Your task to perform on an android device: Toggle the flashlight Image 0: 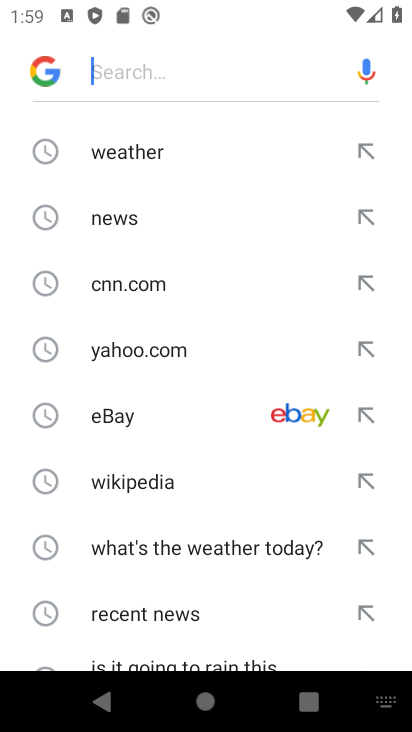
Step 0: press home button
Your task to perform on an android device: Toggle the flashlight Image 1: 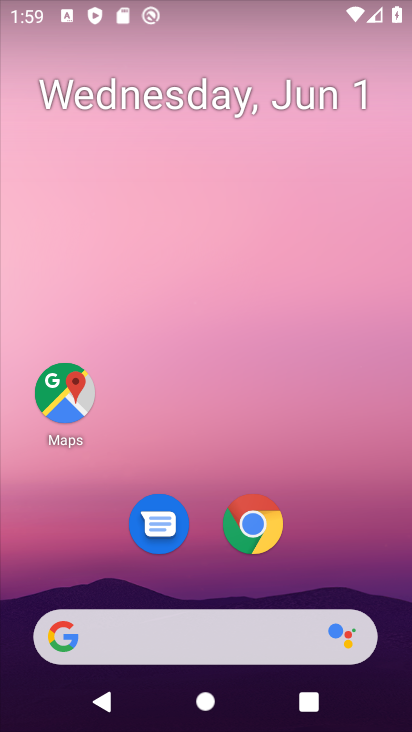
Step 1: drag from (237, 431) to (243, 1)
Your task to perform on an android device: Toggle the flashlight Image 2: 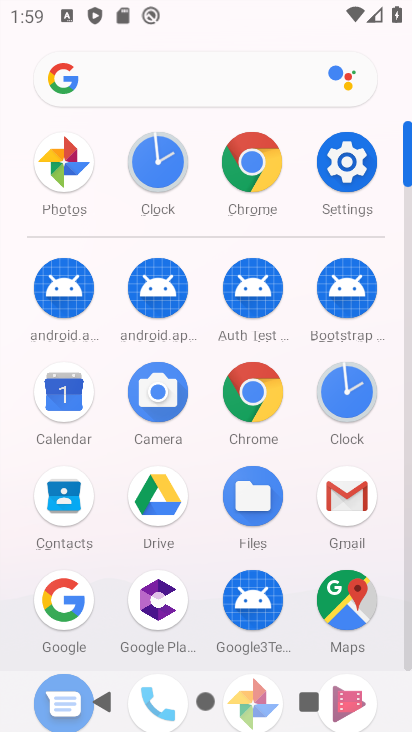
Step 2: click (332, 170)
Your task to perform on an android device: Toggle the flashlight Image 3: 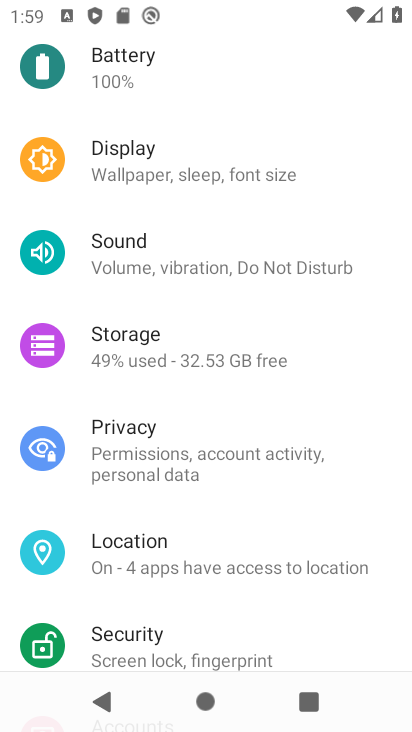
Step 3: drag from (249, 188) to (258, 725)
Your task to perform on an android device: Toggle the flashlight Image 4: 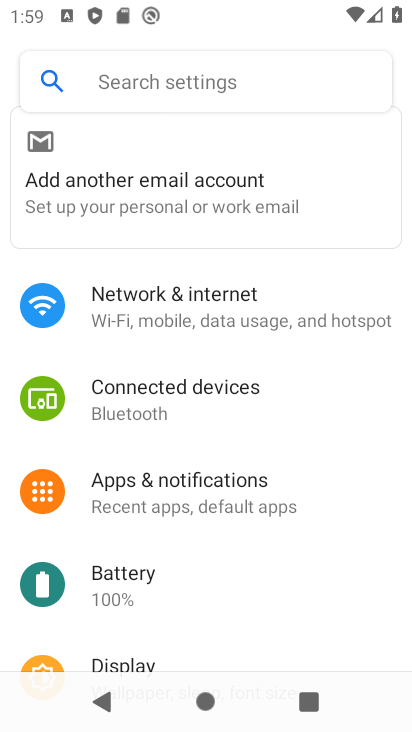
Step 4: click (295, 77)
Your task to perform on an android device: Toggle the flashlight Image 5: 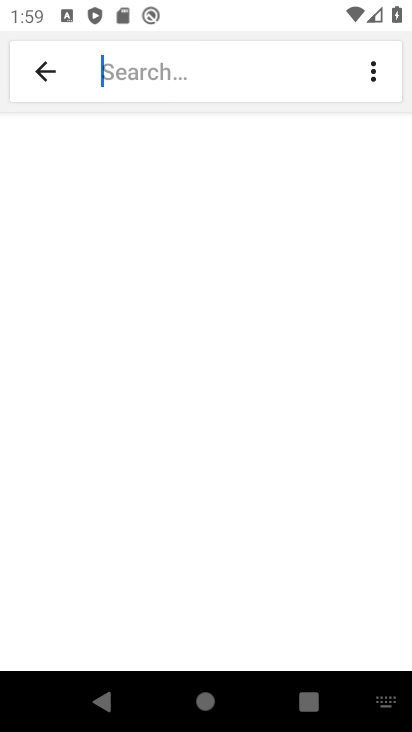
Step 5: type "Flashlight"
Your task to perform on an android device: Toggle the flashlight Image 6: 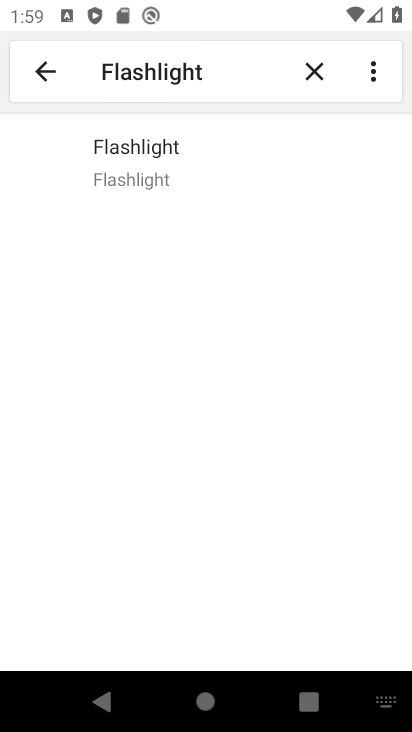
Step 6: click (148, 150)
Your task to perform on an android device: Toggle the flashlight Image 7: 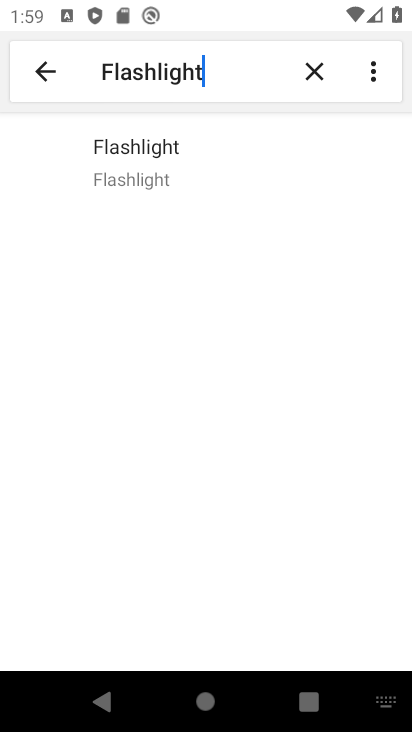
Step 7: click (148, 153)
Your task to perform on an android device: Toggle the flashlight Image 8: 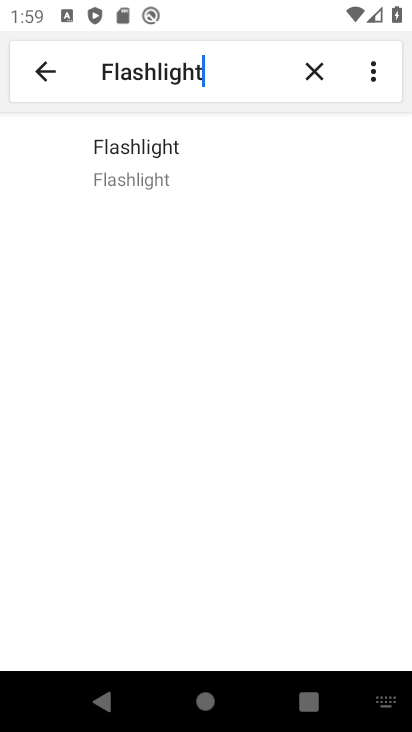
Step 8: task complete